Your task to perform on an android device: see tabs open on other devices in the chrome app Image 0: 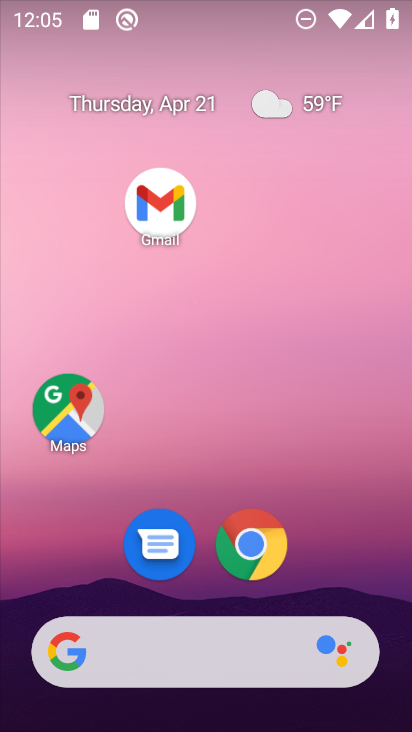
Step 0: click (250, 535)
Your task to perform on an android device: see tabs open on other devices in the chrome app Image 1: 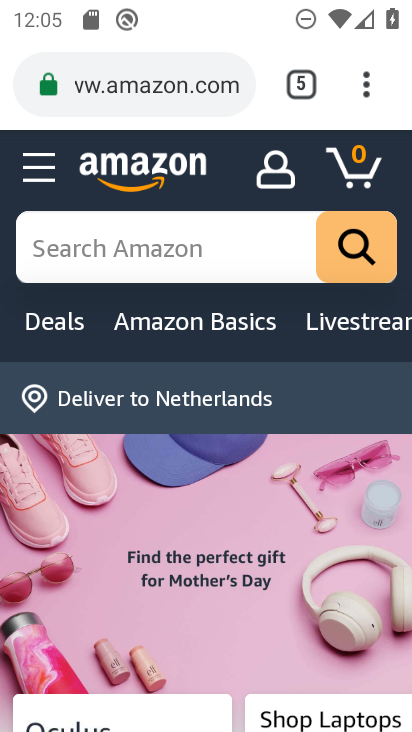
Step 1: click (368, 88)
Your task to perform on an android device: see tabs open on other devices in the chrome app Image 2: 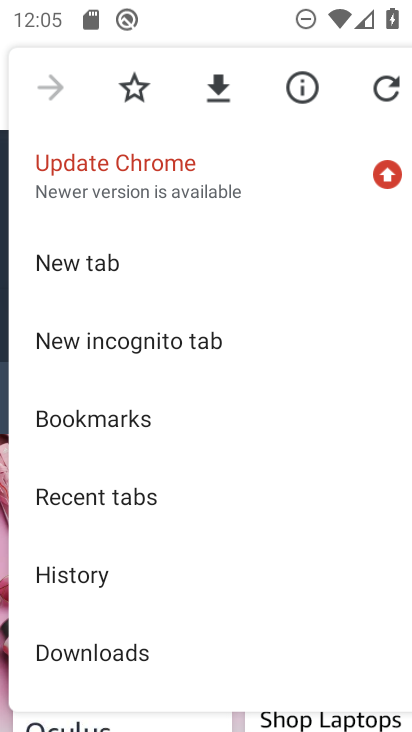
Step 2: click (203, 502)
Your task to perform on an android device: see tabs open on other devices in the chrome app Image 3: 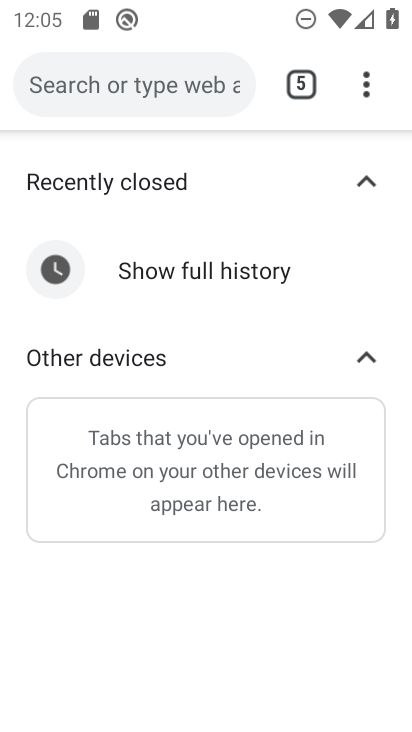
Step 3: task complete